Your task to perform on an android device: clear history in the chrome app Image 0: 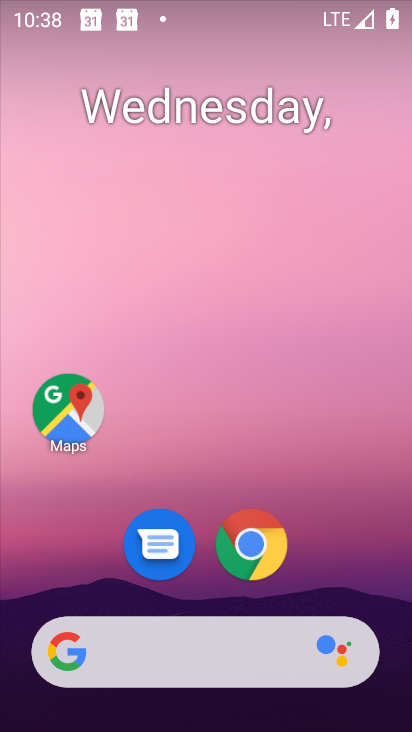
Step 0: click (256, 549)
Your task to perform on an android device: clear history in the chrome app Image 1: 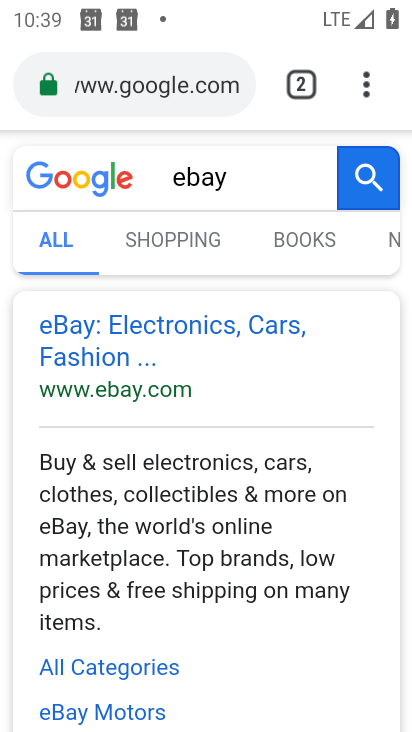
Step 1: click (369, 83)
Your task to perform on an android device: clear history in the chrome app Image 2: 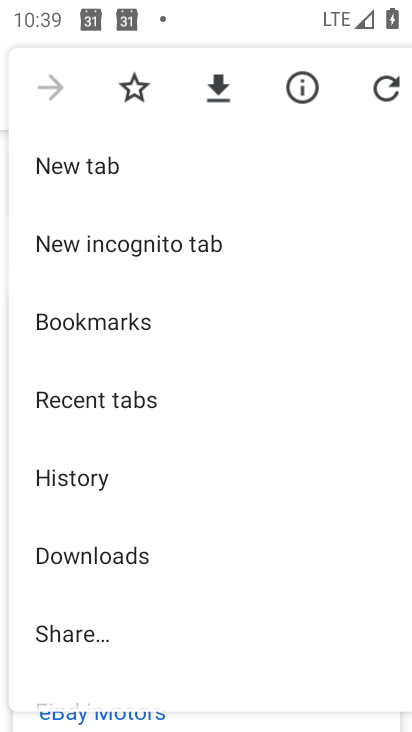
Step 2: click (111, 474)
Your task to perform on an android device: clear history in the chrome app Image 3: 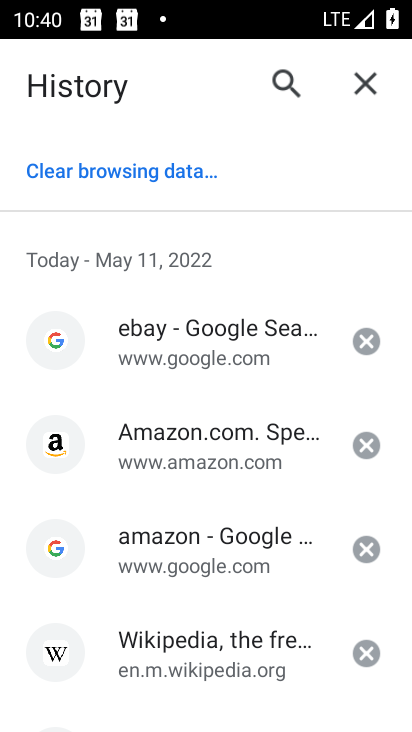
Step 3: click (110, 180)
Your task to perform on an android device: clear history in the chrome app Image 4: 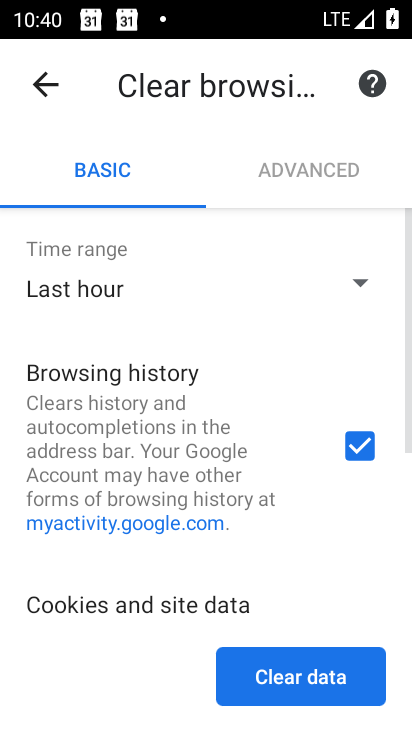
Step 4: click (263, 682)
Your task to perform on an android device: clear history in the chrome app Image 5: 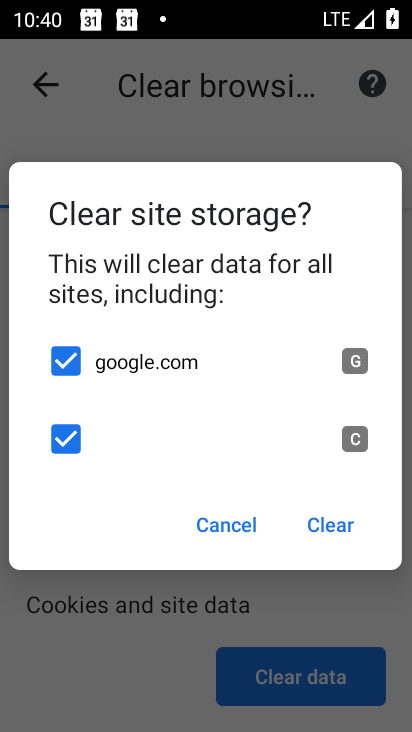
Step 5: click (320, 520)
Your task to perform on an android device: clear history in the chrome app Image 6: 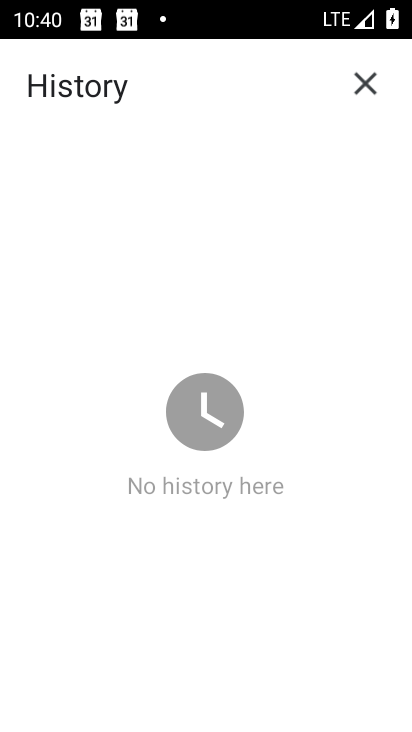
Step 6: task complete